Your task to perform on an android device: Open eBay Image 0: 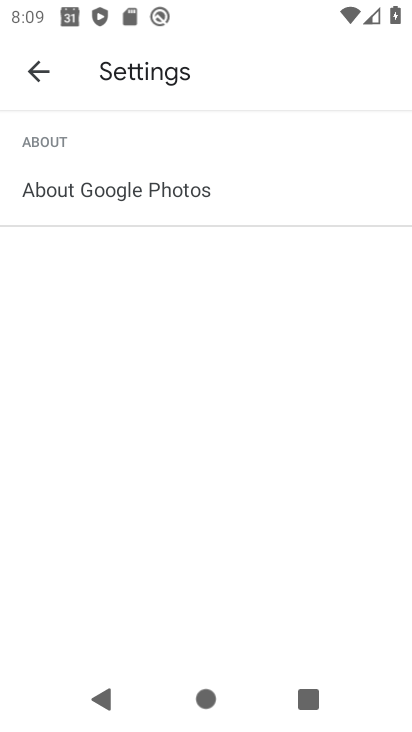
Step 0: press home button
Your task to perform on an android device: Open eBay Image 1: 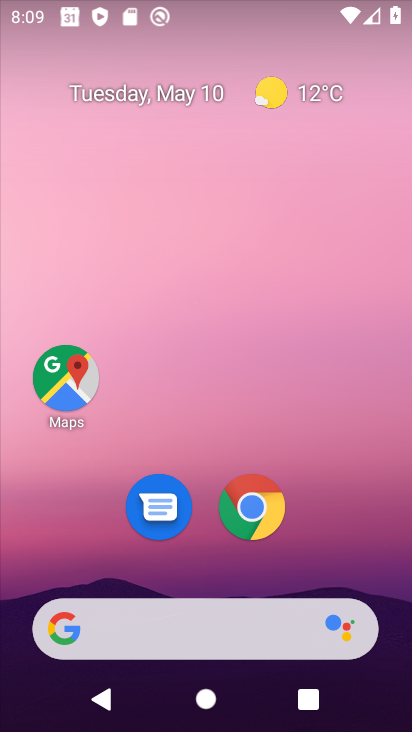
Step 1: click (257, 521)
Your task to perform on an android device: Open eBay Image 2: 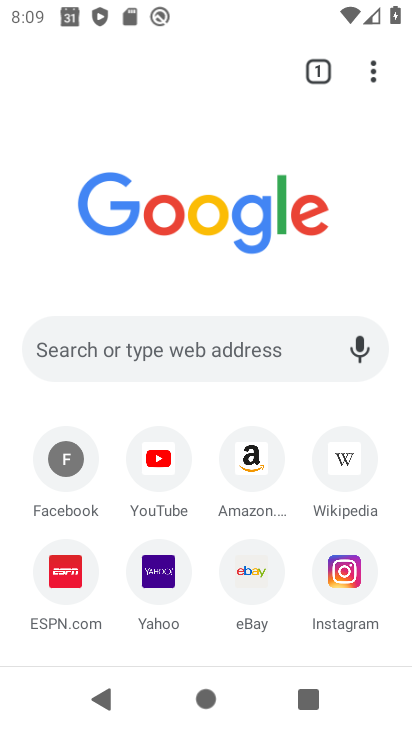
Step 2: click (263, 571)
Your task to perform on an android device: Open eBay Image 3: 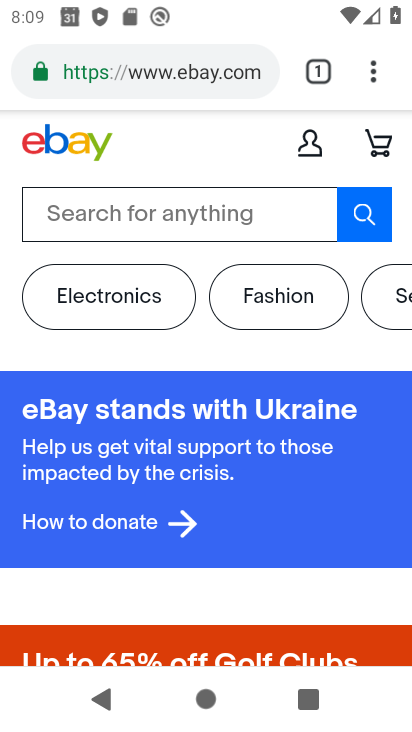
Step 3: task complete